Your task to perform on an android device: Search for vegetarian restaurants on Maps Image 0: 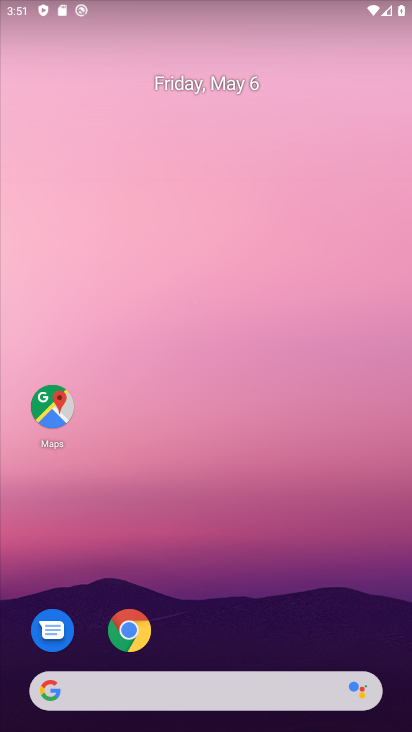
Step 0: click (52, 400)
Your task to perform on an android device: Search for vegetarian restaurants on Maps Image 1: 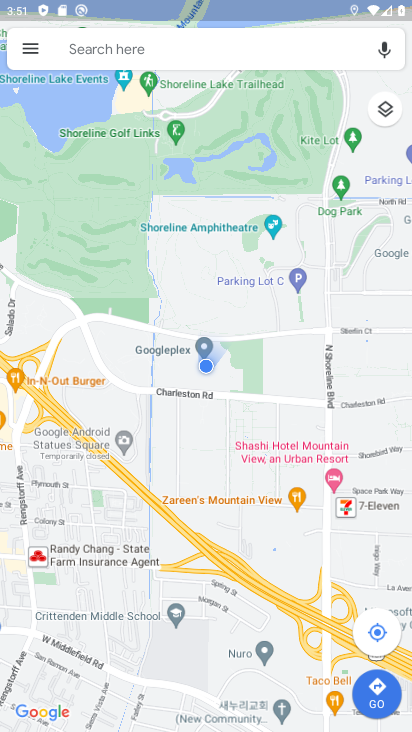
Step 1: click (106, 55)
Your task to perform on an android device: Search for vegetarian restaurants on Maps Image 2: 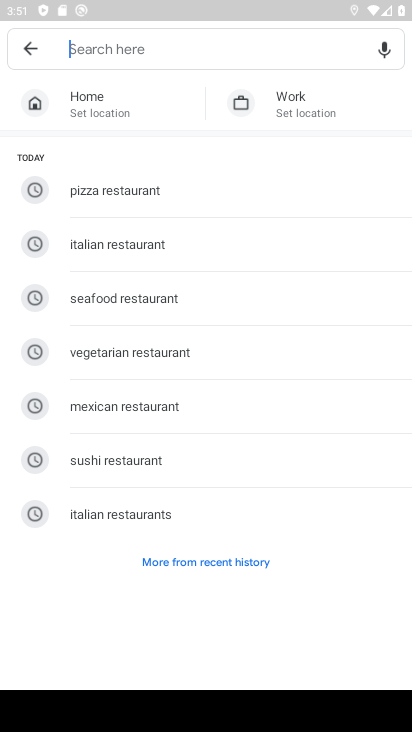
Step 2: click (126, 350)
Your task to perform on an android device: Search for vegetarian restaurants on Maps Image 3: 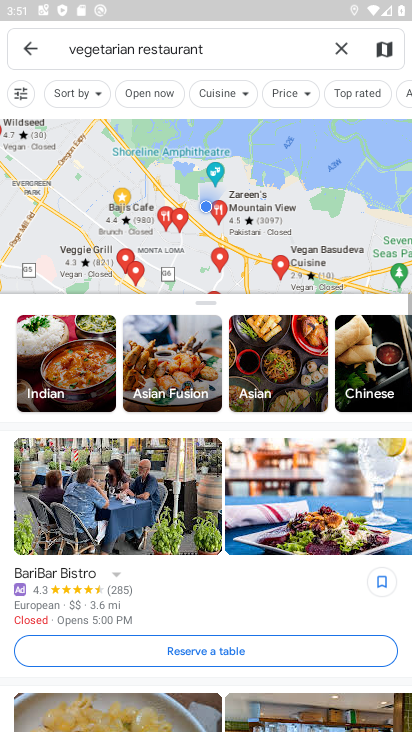
Step 3: task complete